Your task to perform on an android device: turn on translation in the chrome app Image 0: 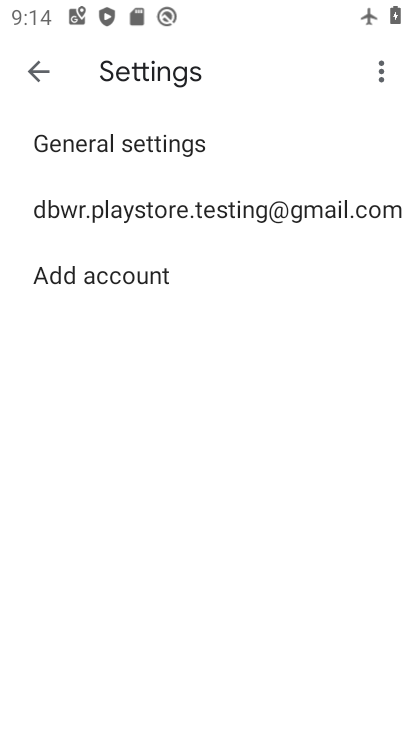
Step 0: press home button
Your task to perform on an android device: turn on translation in the chrome app Image 1: 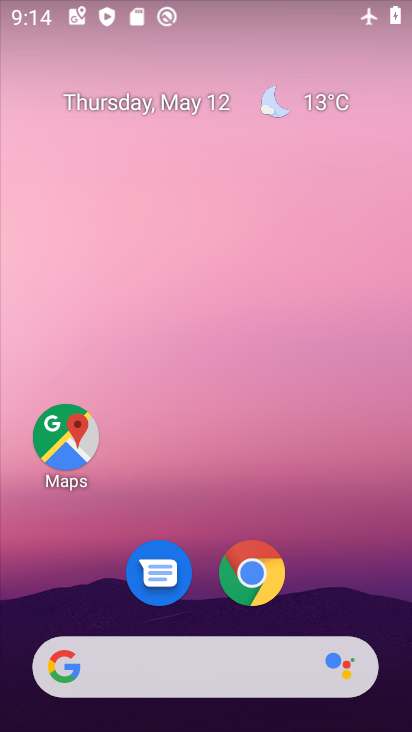
Step 1: click (260, 566)
Your task to perform on an android device: turn on translation in the chrome app Image 2: 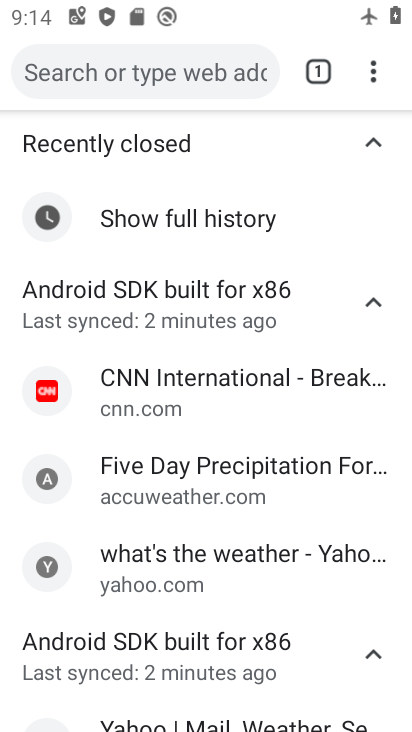
Step 2: click (370, 70)
Your task to perform on an android device: turn on translation in the chrome app Image 3: 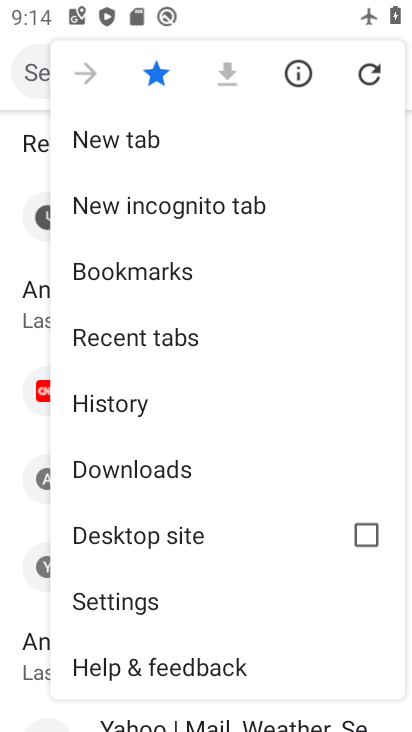
Step 3: click (132, 600)
Your task to perform on an android device: turn on translation in the chrome app Image 4: 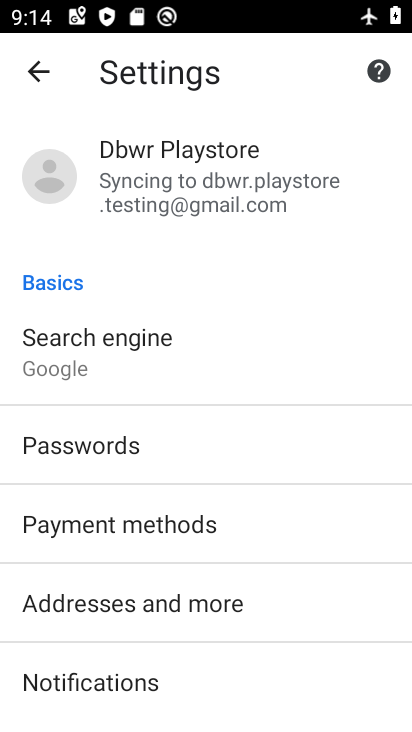
Step 4: drag from (307, 659) to (310, 389)
Your task to perform on an android device: turn on translation in the chrome app Image 5: 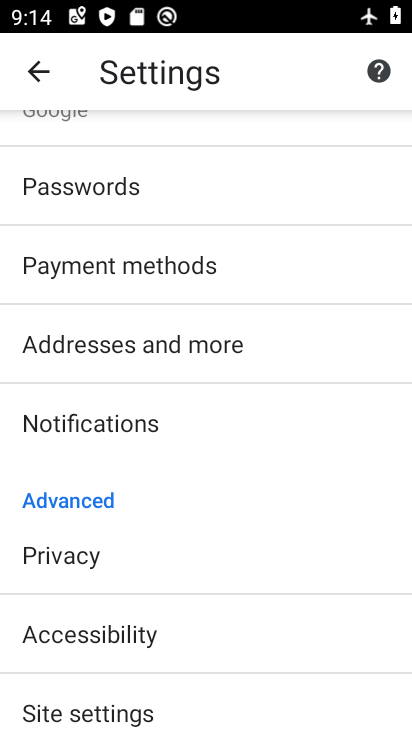
Step 5: click (266, 468)
Your task to perform on an android device: turn on translation in the chrome app Image 6: 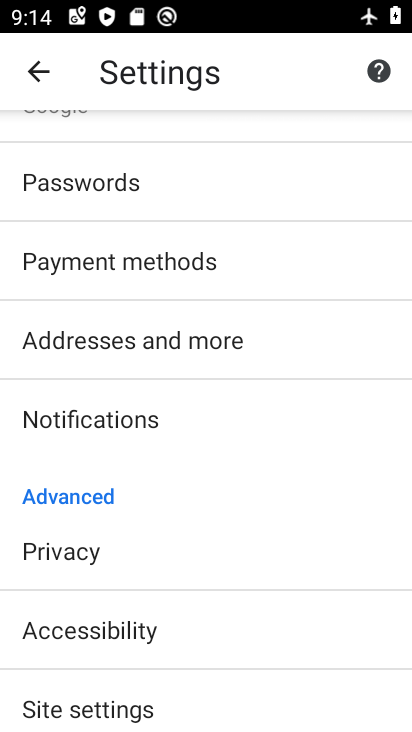
Step 6: drag from (252, 671) to (260, 414)
Your task to perform on an android device: turn on translation in the chrome app Image 7: 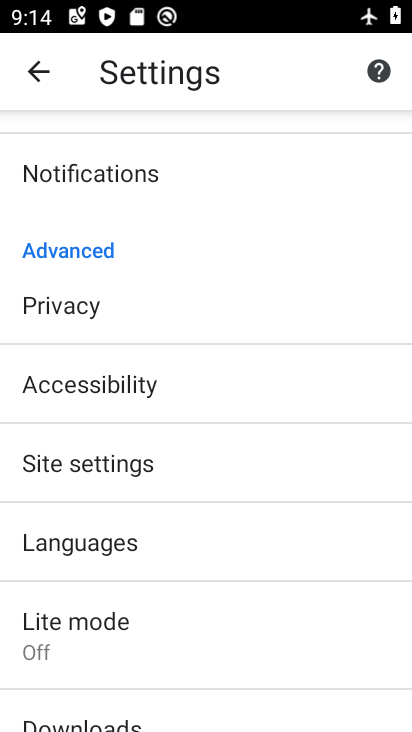
Step 7: click (108, 536)
Your task to perform on an android device: turn on translation in the chrome app Image 8: 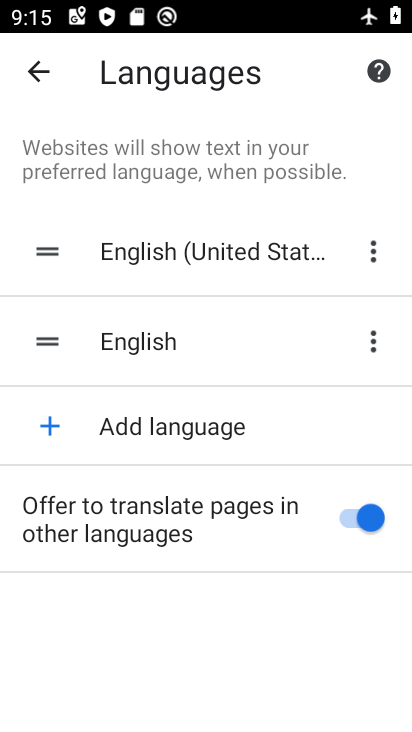
Step 8: task complete